Your task to perform on an android device: Open Chrome and go to settings Image 0: 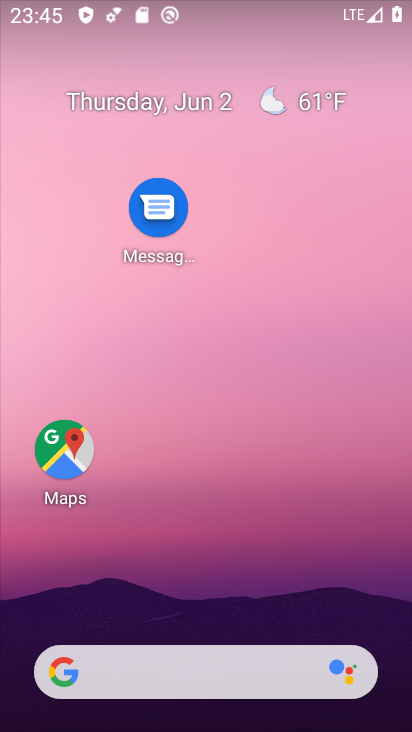
Step 0: drag from (229, 646) to (193, 93)
Your task to perform on an android device: Open Chrome and go to settings Image 1: 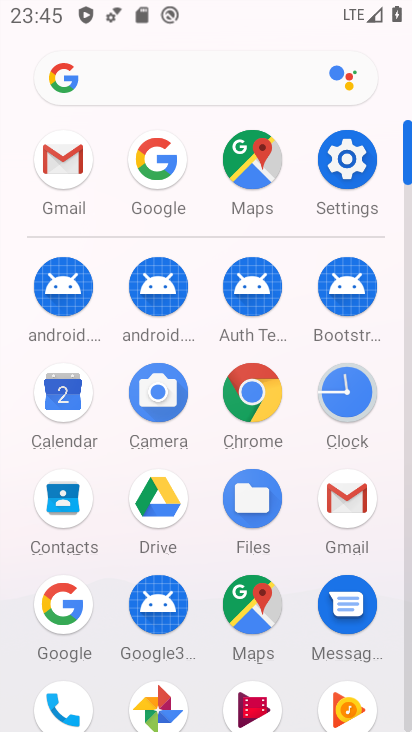
Step 1: click (234, 418)
Your task to perform on an android device: Open Chrome and go to settings Image 2: 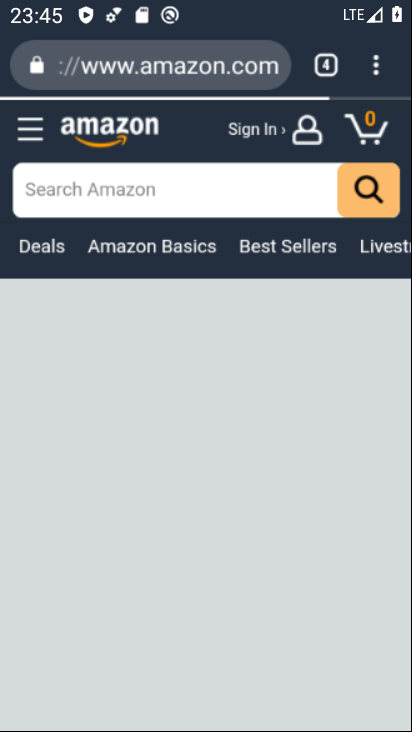
Step 2: drag from (382, 62) to (260, 463)
Your task to perform on an android device: Open Chrome and go to settings Image 3: 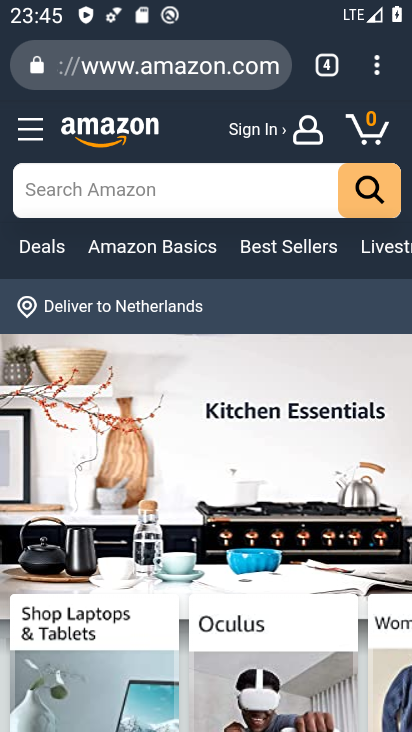
Step 3: click (372, 63)
Your task to perform on an android device: Open Chrome and go to settings Image 4: 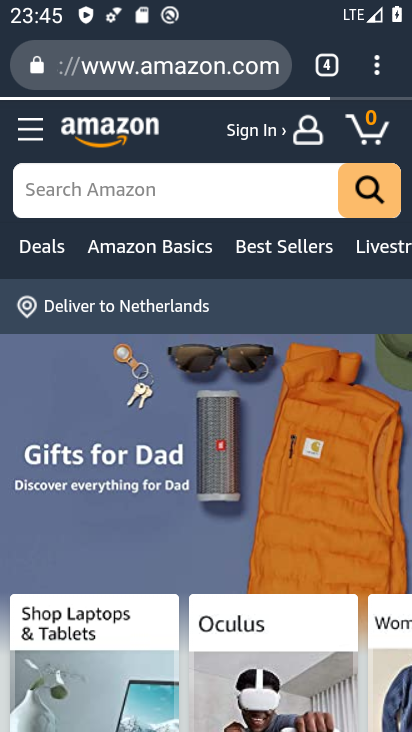
Step 4: task complete